Your task to perform on an android device: Search for bose soundlink on costco, select the first entry, and add it to the cart. Image 0: 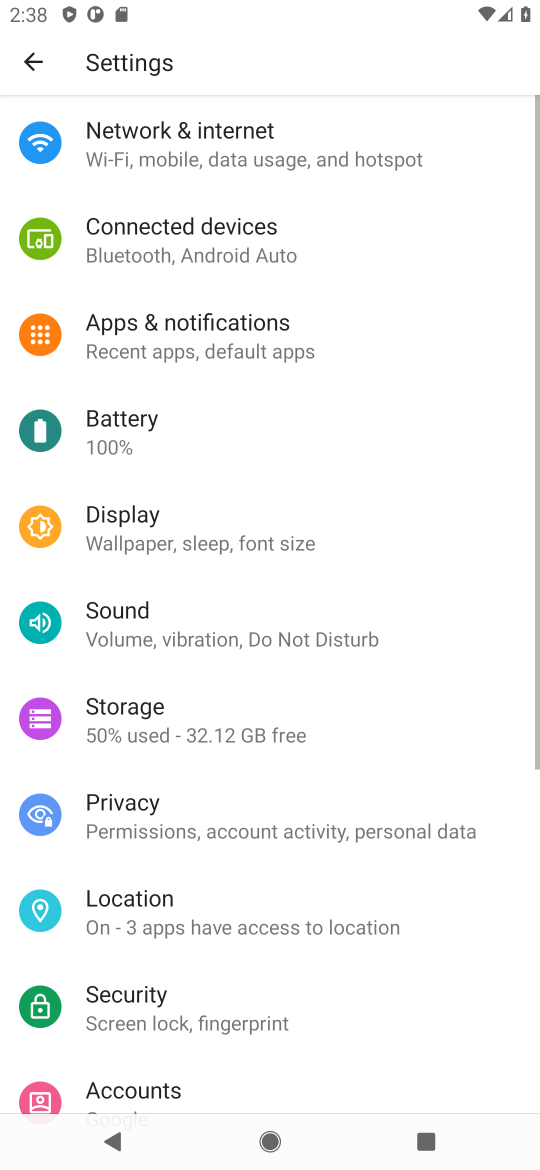
Step 0: press home button
Your task to perform on an android device: Search for bose soundlink on costco, select the first entry, and add it to the cart. Image 1: 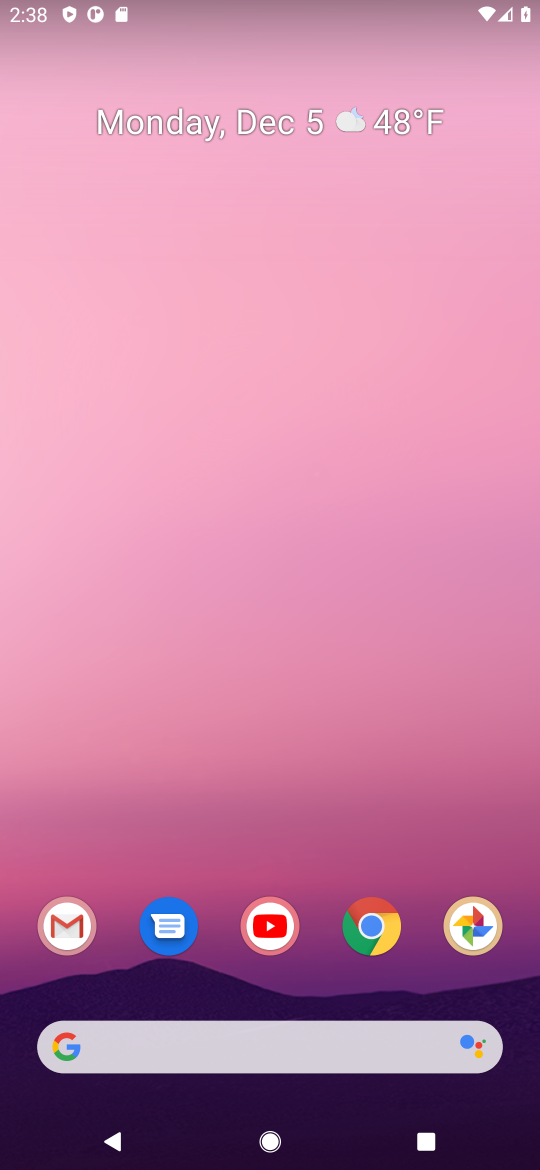
Step 1: click (352, 940)
Your task to perform on an android device: Search for bose soundlink on costco, select the first entry, and add it to the cart. Image 2: 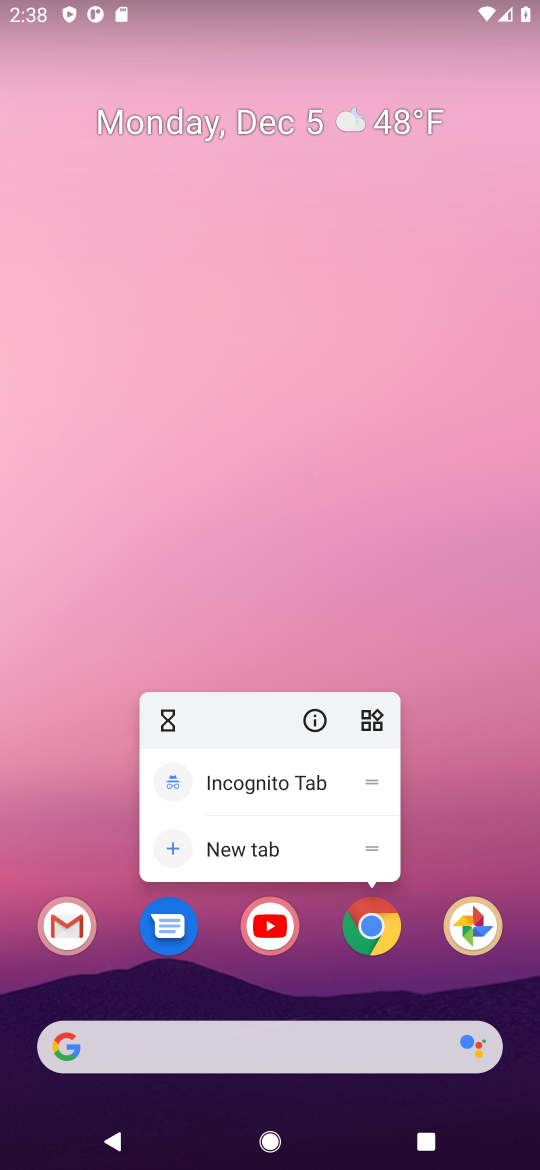
Step 2: click (392, 917)
Your task to perform on an android device: Search for bose soundlink on costco, select the first entry, and add it to the cart. Image 3: 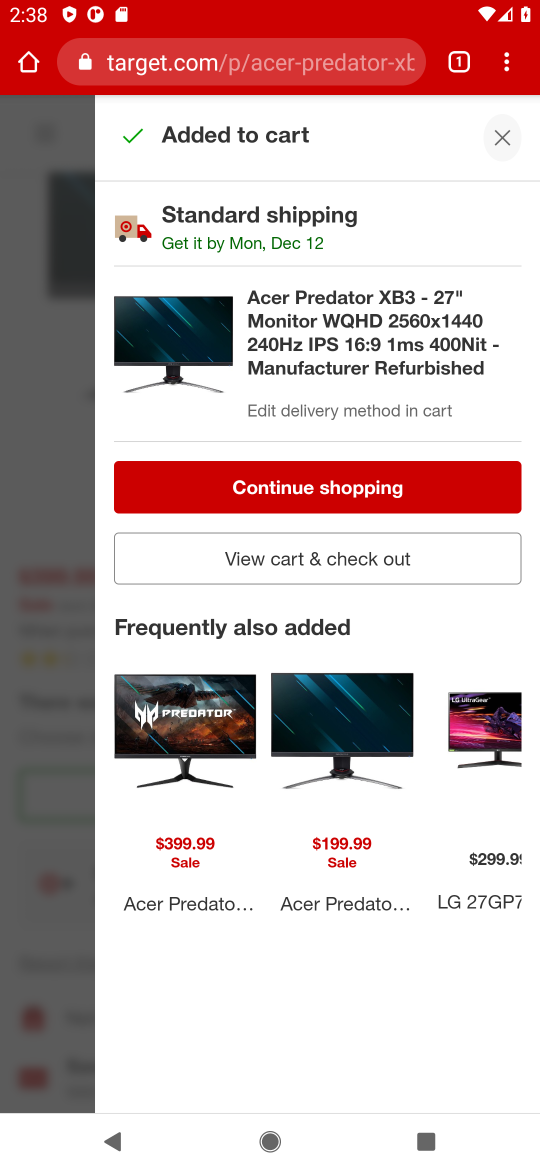
Step 3: click (497, 124)
Your task to perform on an android device: Search for bose soundlink on costco, select the first entry, and add it to the cart. Image 4: 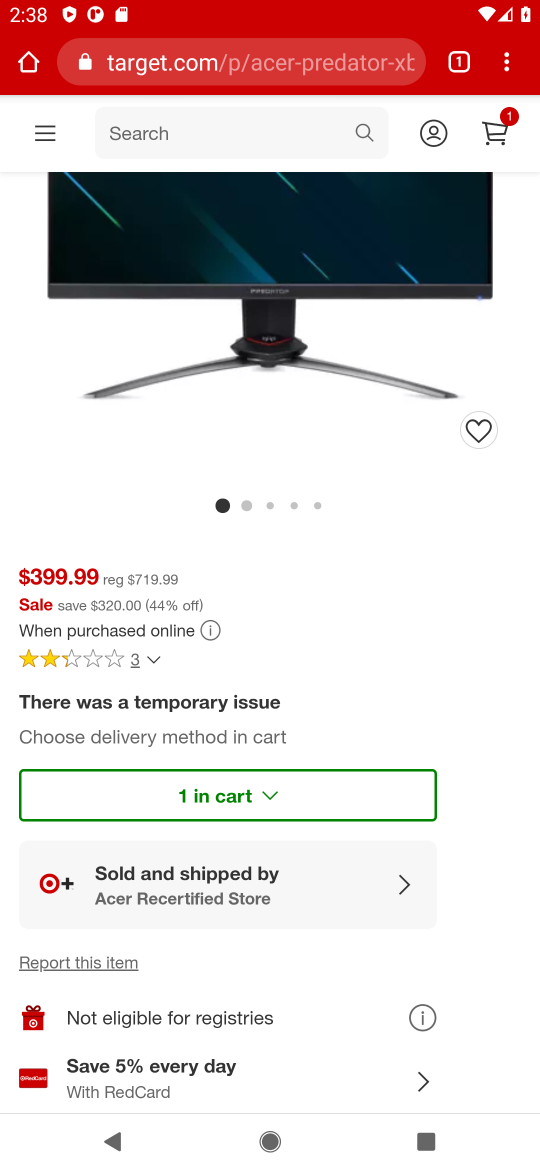
Step 4: click (266, 74)
Your task to perform on an android device: Search for bose soundlink on costco, select the first entry, and add it to the cart. Image 5: 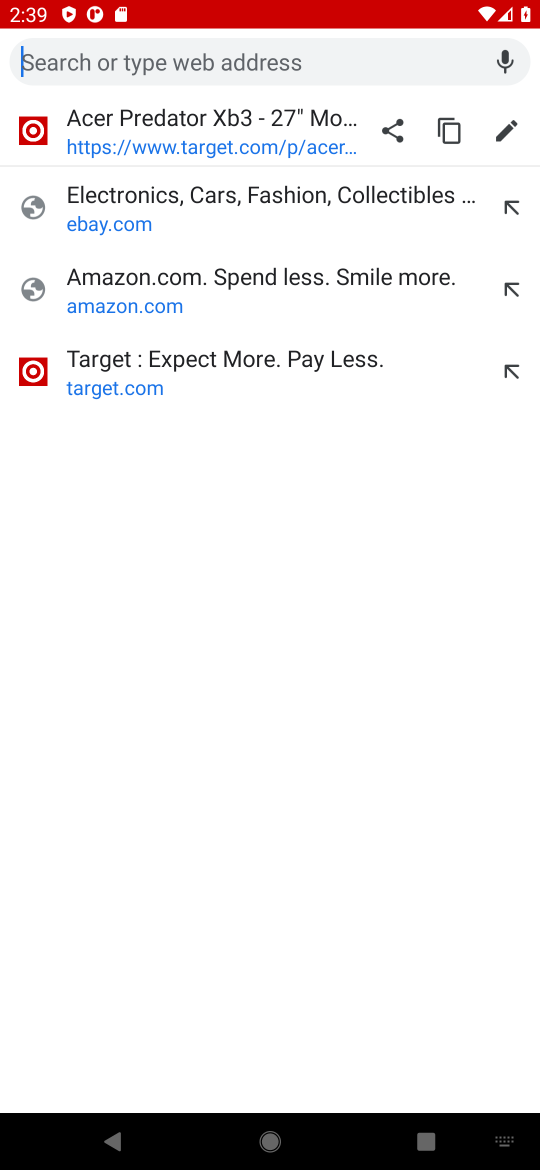
Step 5: type "costco"
Your task to perform on an android device: Search for bose soundlink on costco, select the first entry, and add it to the cart. Image 6: 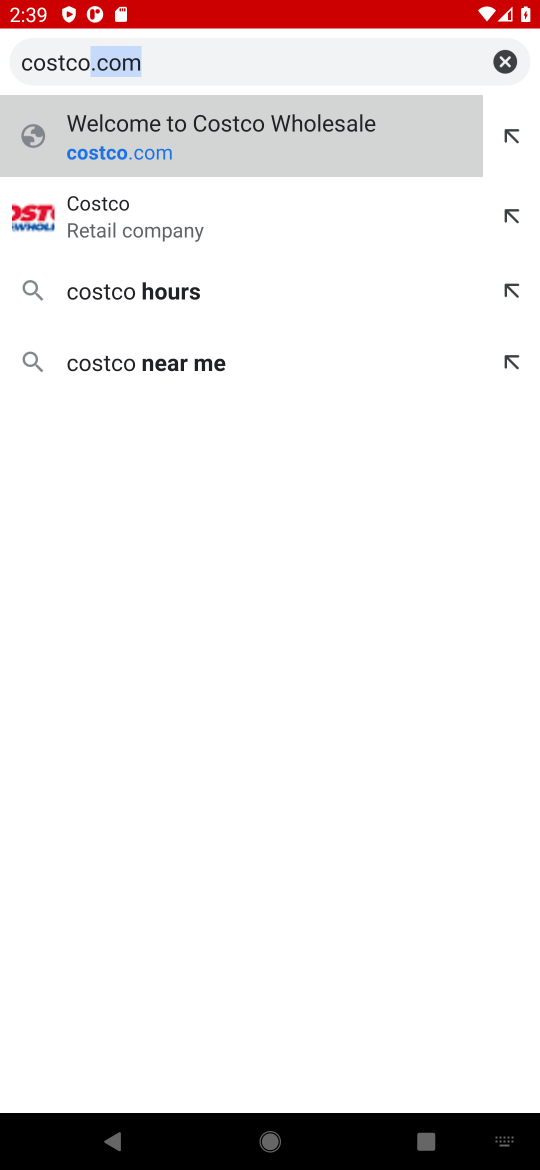
Step 6: press enter
Your task to perform on an android device: Search for bose soundlink on costco, select the first entry, and add it to the cart. Image 7: 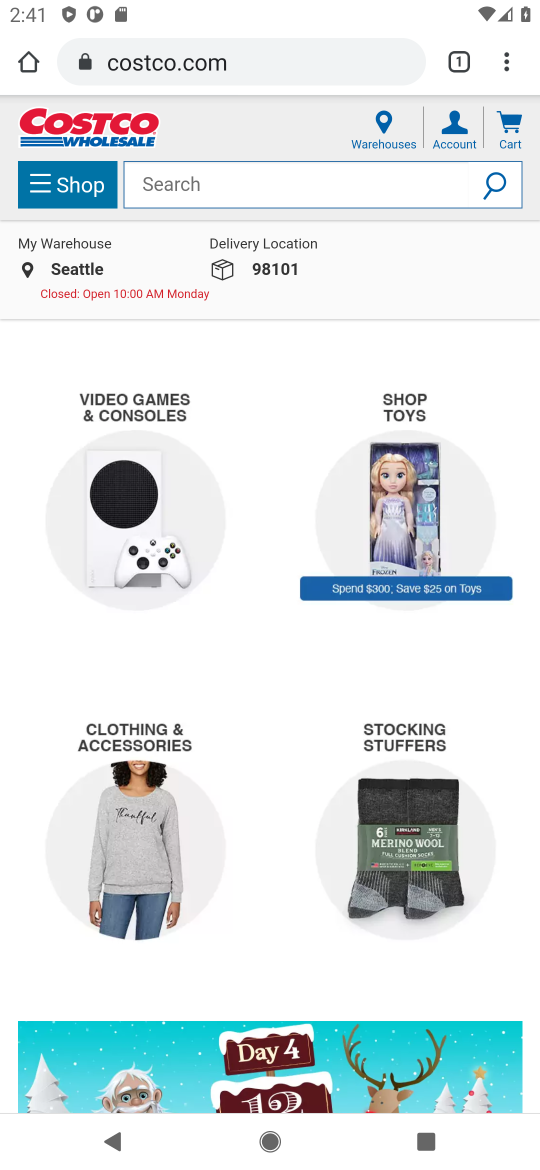
Step 7: click (277, 172)
Your task to perform on an android device: Search for bose soundlink on costco, select the first entry, and add it to the cart. Image 8: 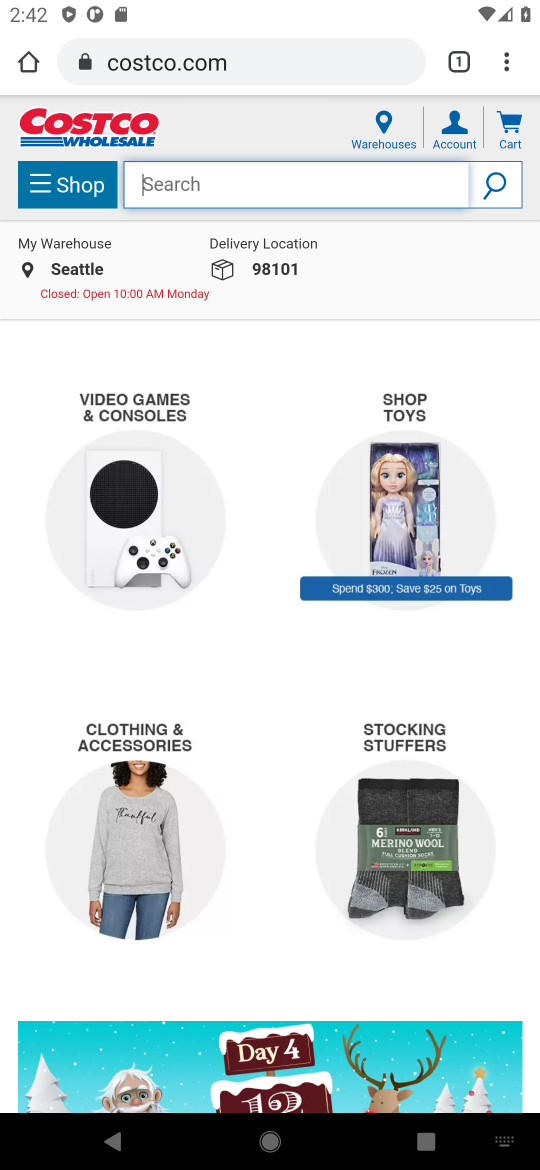
Step 8: click (305, 182)
Your task to perform on an android device: Search for bose soundlink on costco, select the first entry, and add it to the cart. Image 9: 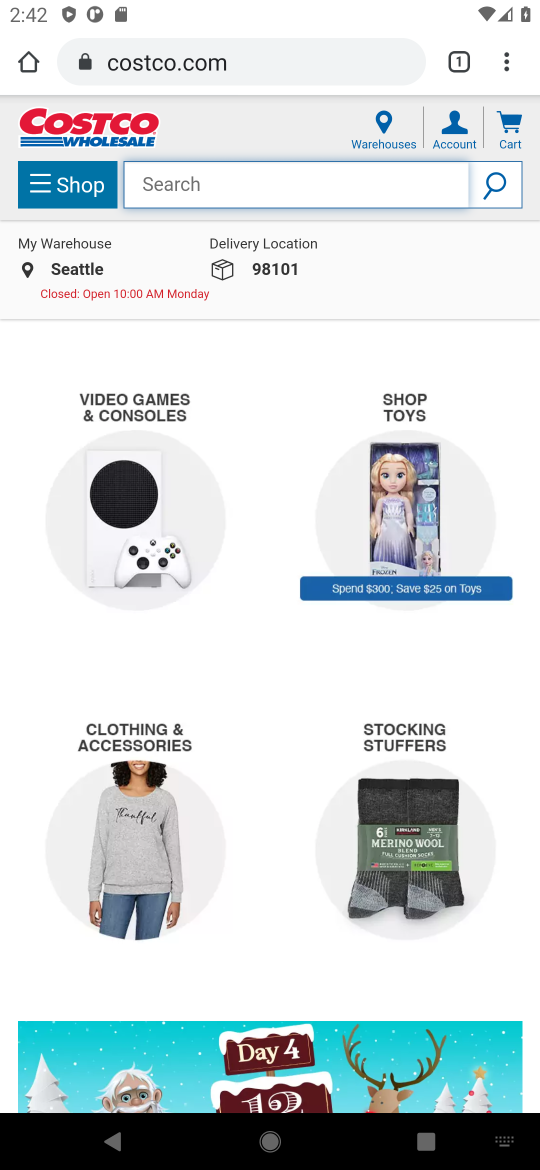
Step 9: click (325, 193)
Your task to perform on an android device: Search for bose soundlink on costco, select the first entry, and add it to the cart. Image 10: 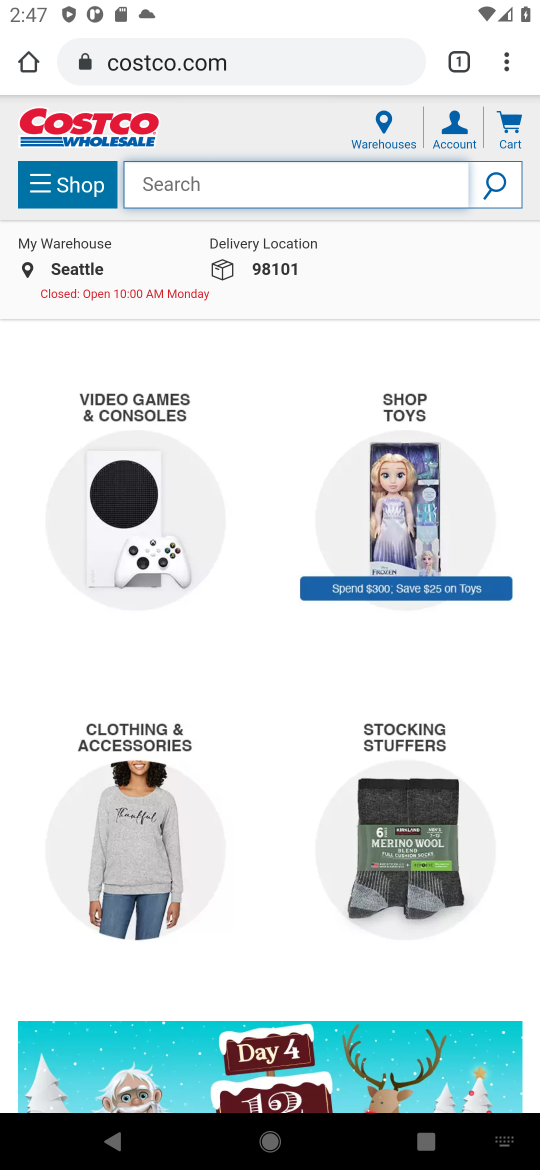
Step 10: click (271, 183)
Your task to perform on an android device: Search for bose soundlink on costco, select the first entry, and add it to the cart. Image 11: 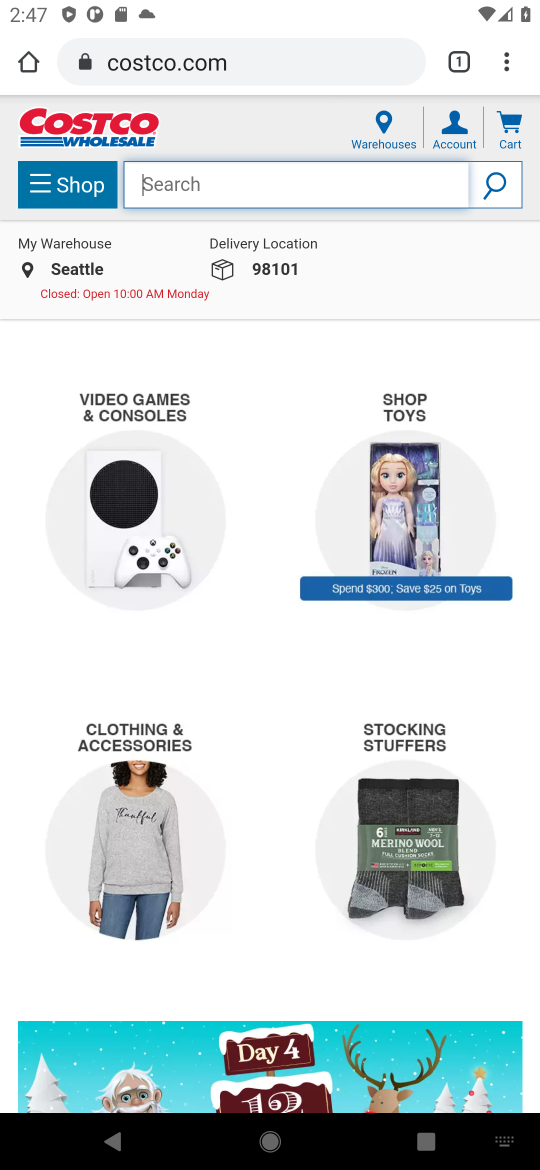
Step 11: type "bose soundlink "
Your task to perform on an android device: Search for bose soundlink on costco, select the first entry, and add it to the cart. Image 12: 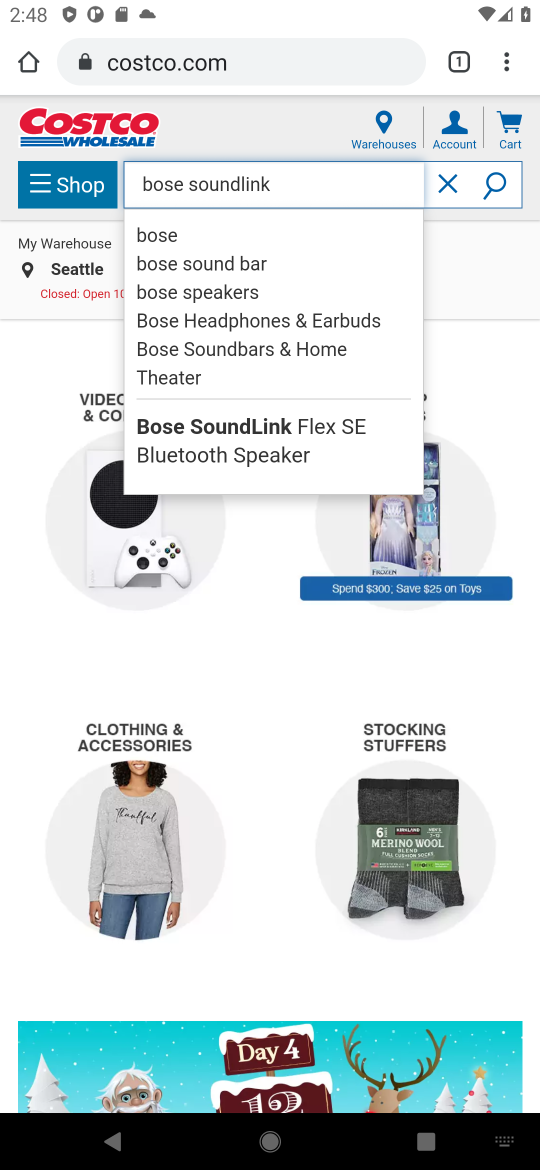
Step 12: click (265, 857)
Your task to perform on an android device: Search for bose soundlink on costco, select the first entry, and add it to the cart. Image 13: 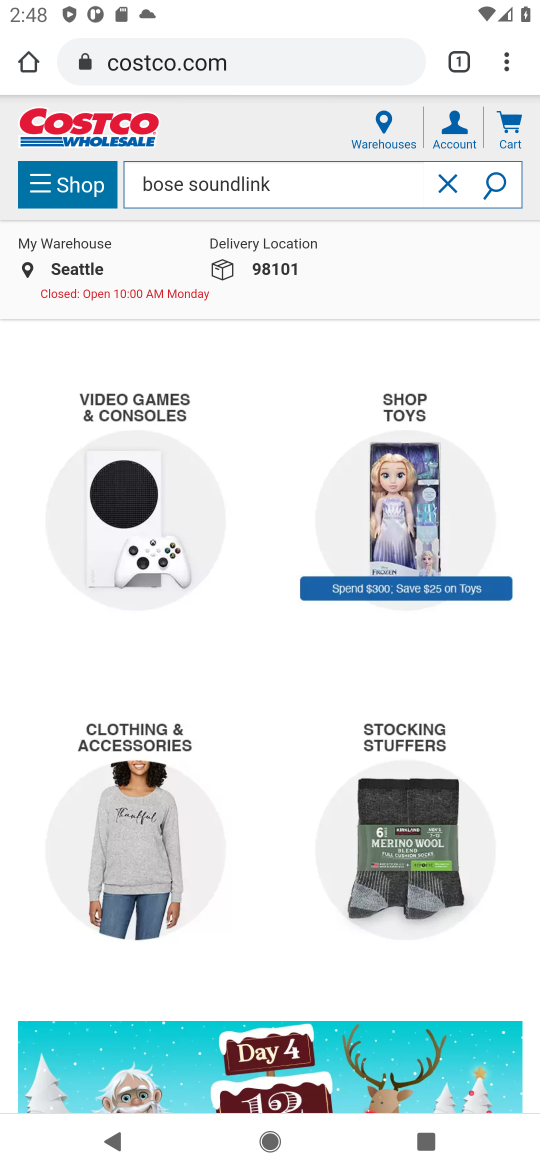
Step 13: task complete